Your task to perform on an android device: Open wifi settings Image 0: 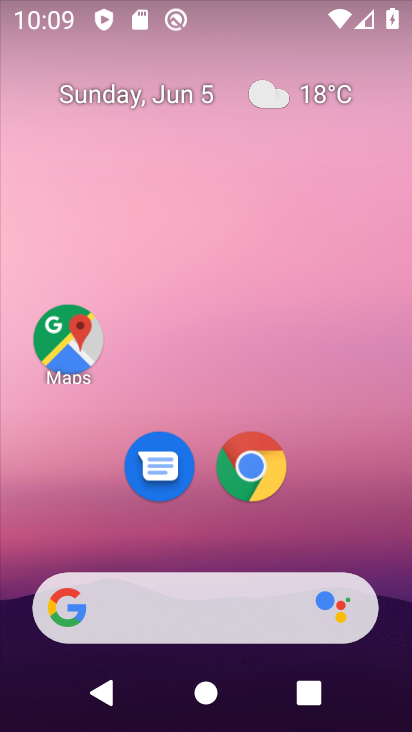
Step 0: drag from (337, 505) to (288, 24)
Your task to perform on an android device: Open wifi settings Image 1: 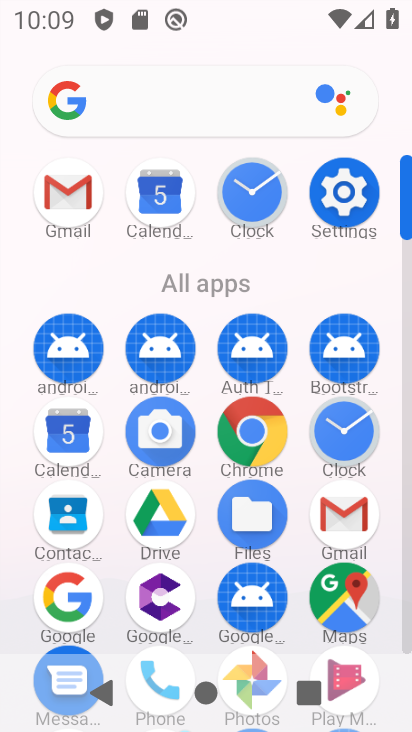
Step 1: click (345, 191)
Your task to perform on an android device: Open wifi settings Image 2: 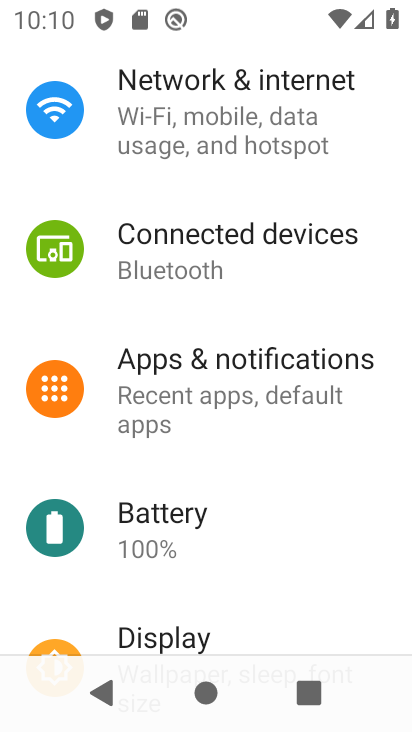
Step 2: drag from (327, 184) to (325, 279)
Your task to perform on an android device: Open wifi settings Image 3: 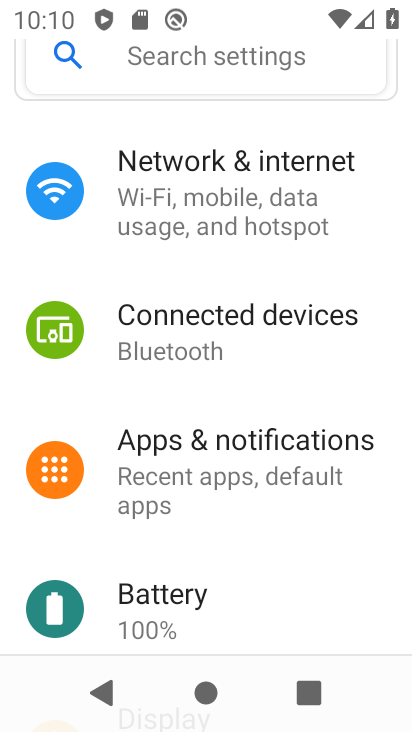
Step 3: drag from (283, 252) to (276, 343)
Your task to perform on an android device: Open wifi settings Image 4: 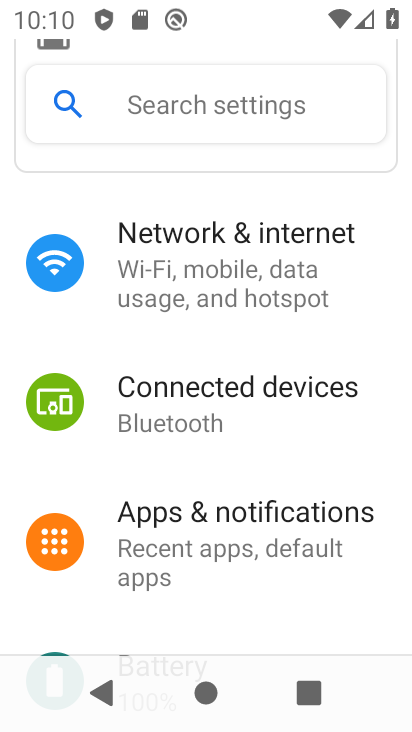
Step 4: click (271, 245)
Your task to perform on an android device: Open wifi settings Image 5: 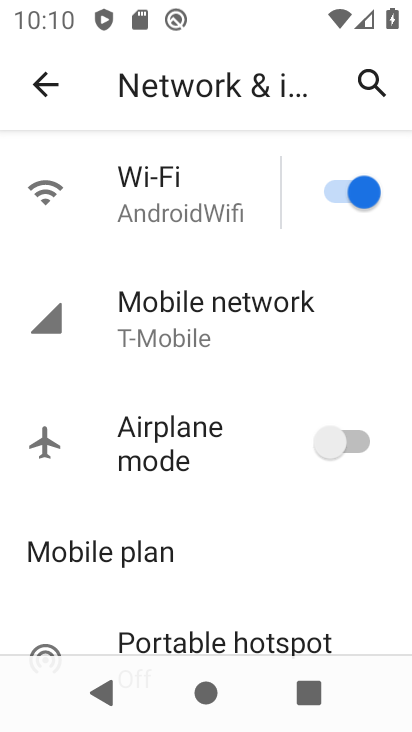
Step 5: click (180, 183)
Your task to perform on an android device: Open wifi settings Image 6: 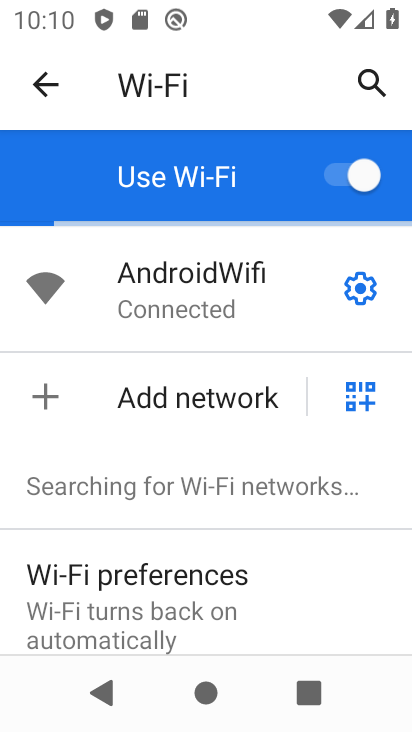
Step 6: click (365, 288)
Your task to perform on an android device: Open wifi settings Image 7: 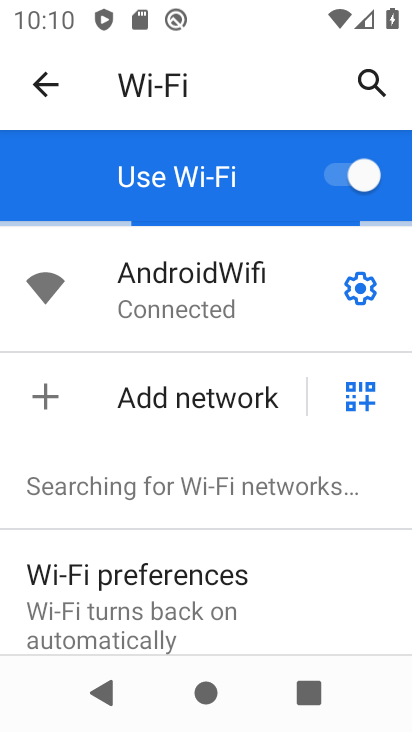
Step 7: click (365, 288)
Your task to perform on an android device: Open wifi settings Image 8: 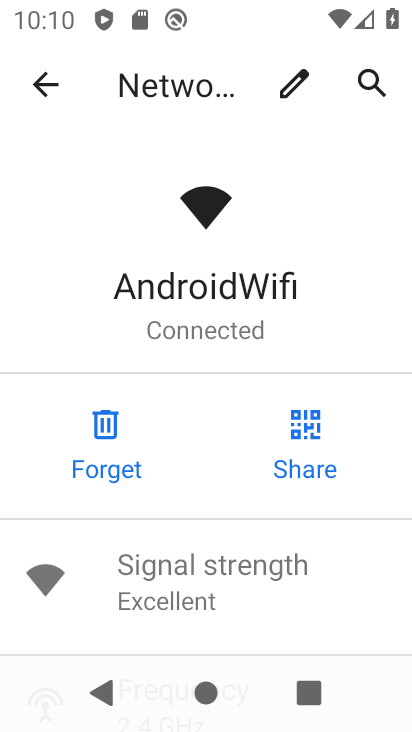
Step 8: task complete